Your task to perform on an android device: toggle location history Image 0: 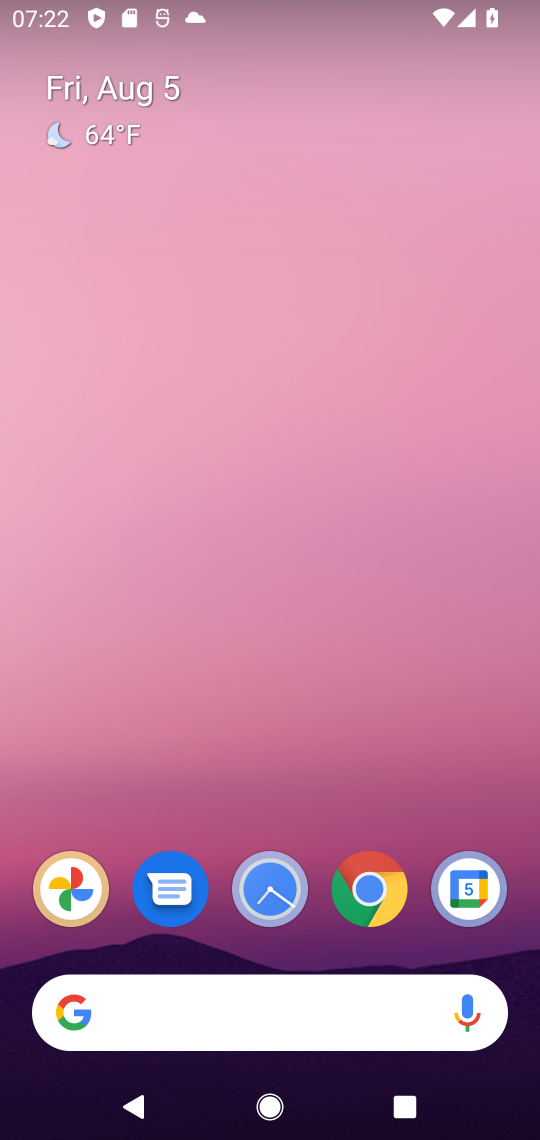
Step 0: drag from (356, 895) to (460, 29)
Your task to perform on an android device: toggle location history Image 1: 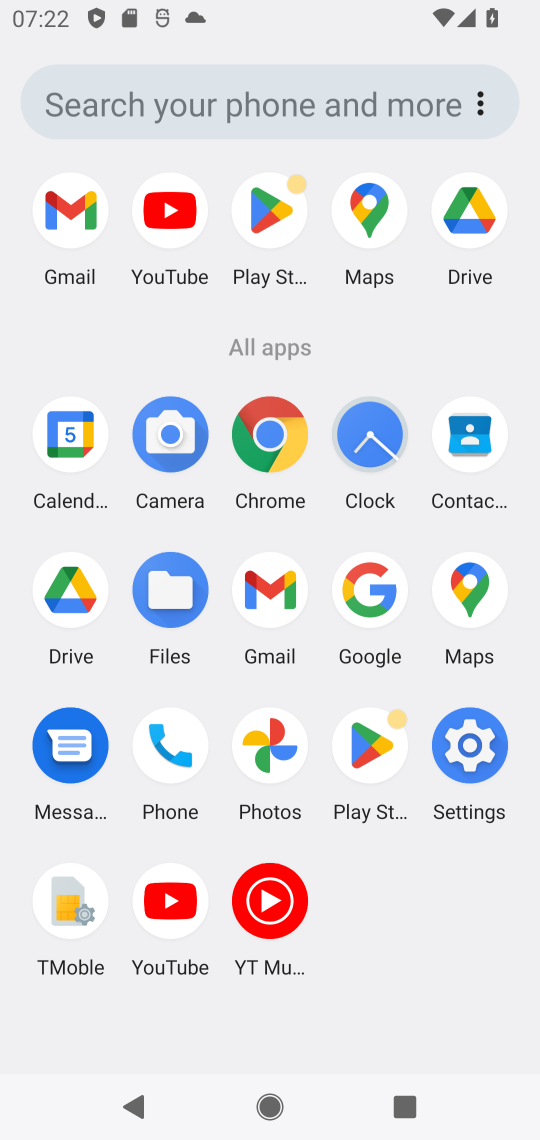
Step 1: click (465, 757)
Your task to perform on an android device: toggle location history Image 2: 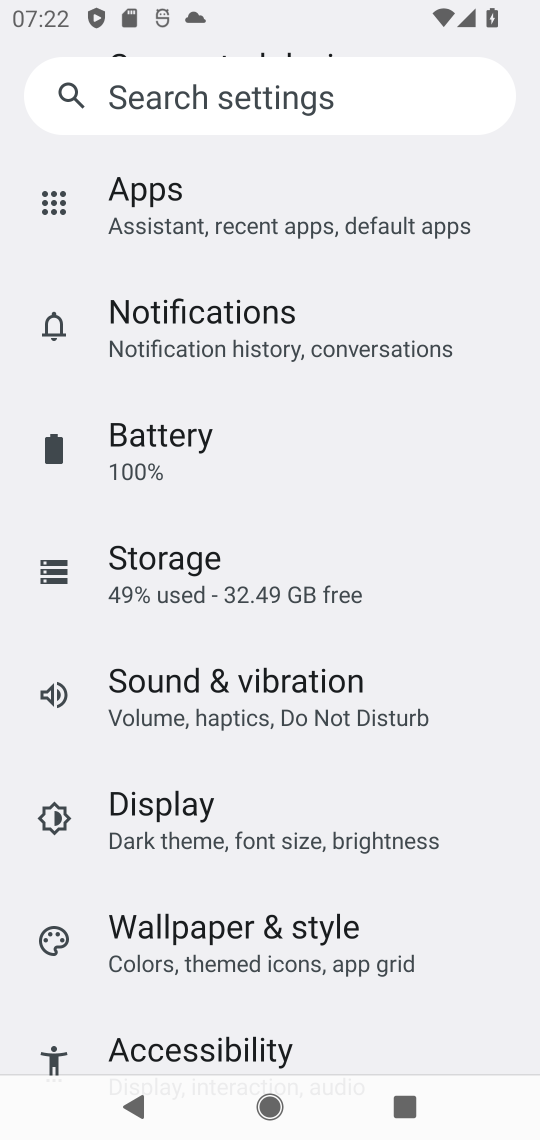
Step 2: drag from (185, 1049) to (216, 510)
Your task to perform on an android device: toggle location history Image 3: 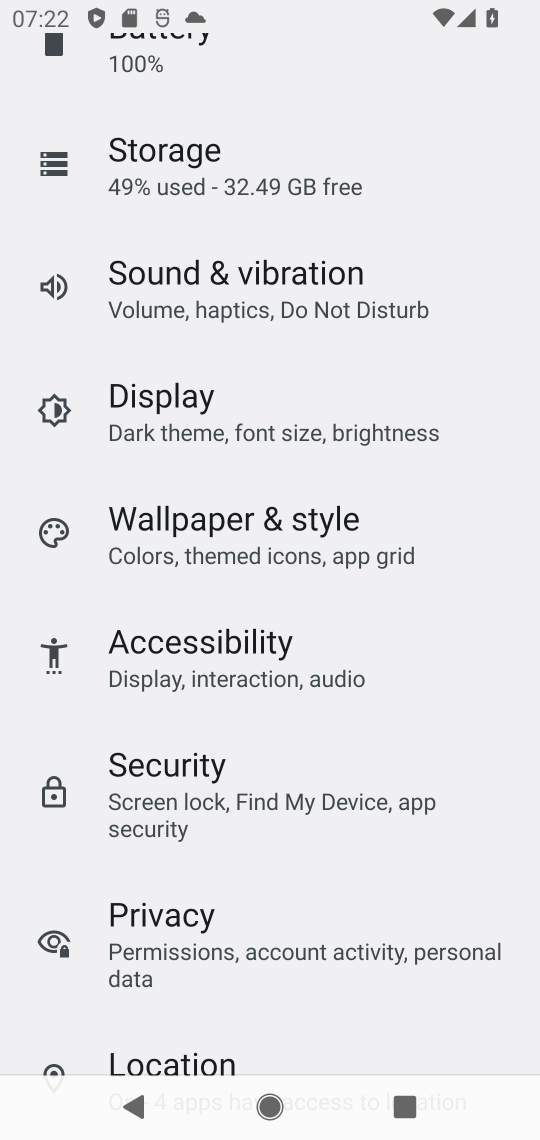
Step 3: click (159, 1061)
Your task to perform on an android device: toggle location history Image 4: 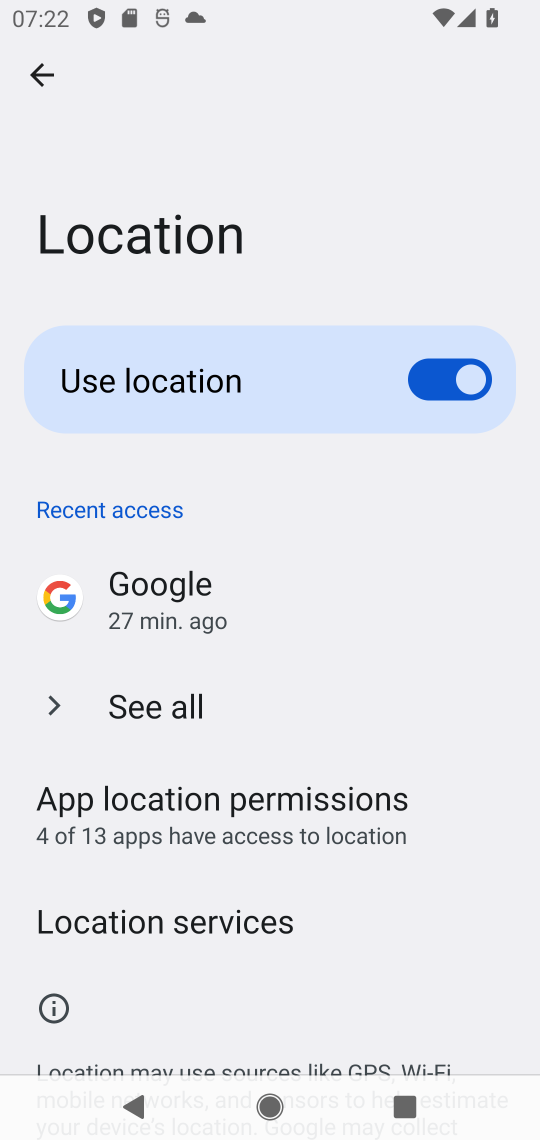
Step 4: drag from (149, 1057) to (212, 356)
Your task to perform on an android device: toggle location history Image 5: 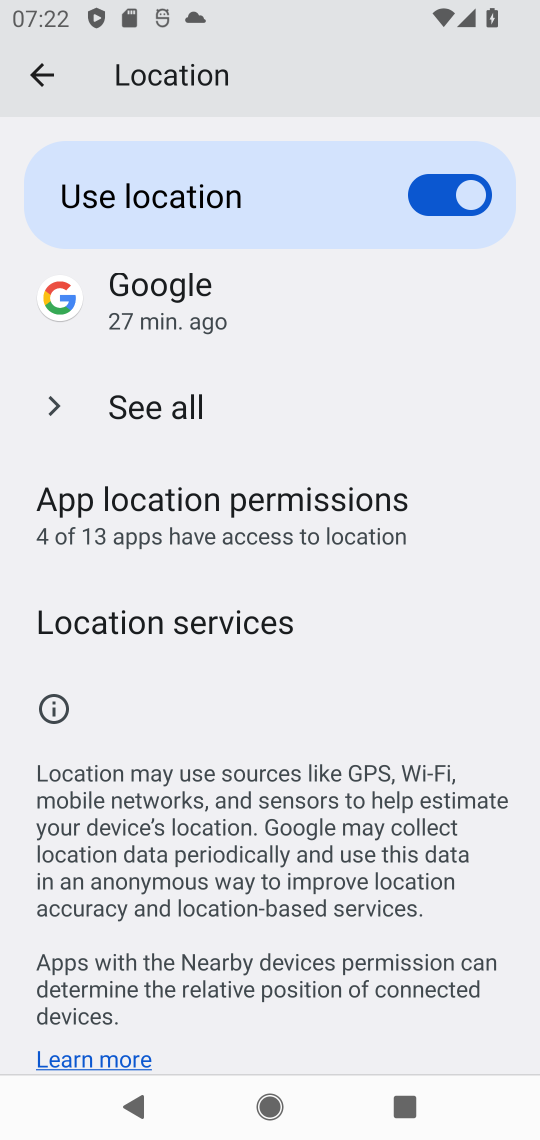
Step 5: drag from (196, 1024) to (236, 446)
Your task to perform on an android device: toggle location history Image 6: 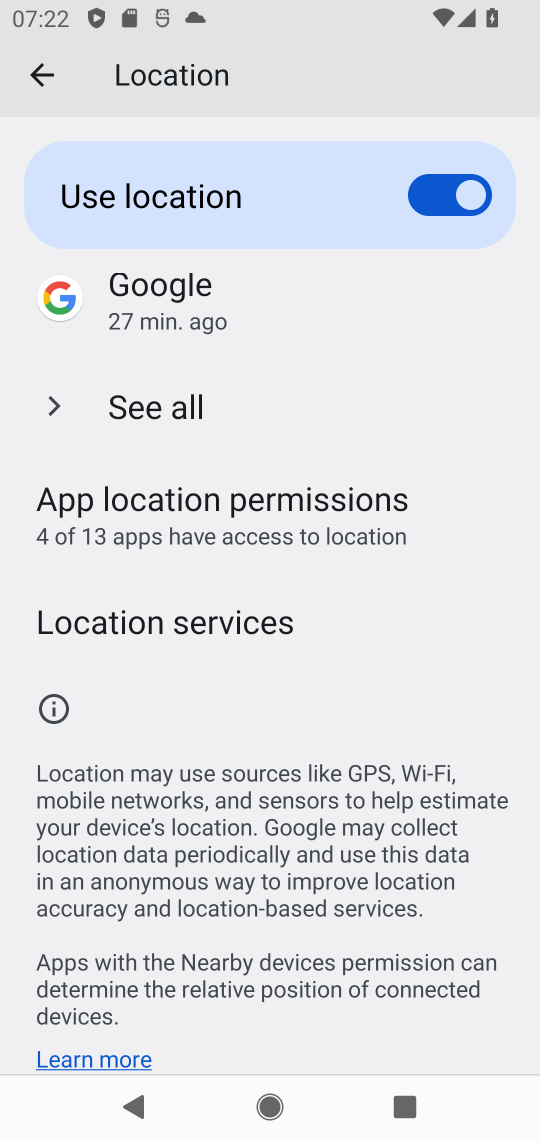
Step 6: click (170, 619)
Your task to perform on an android device: toggle location history Image 7: 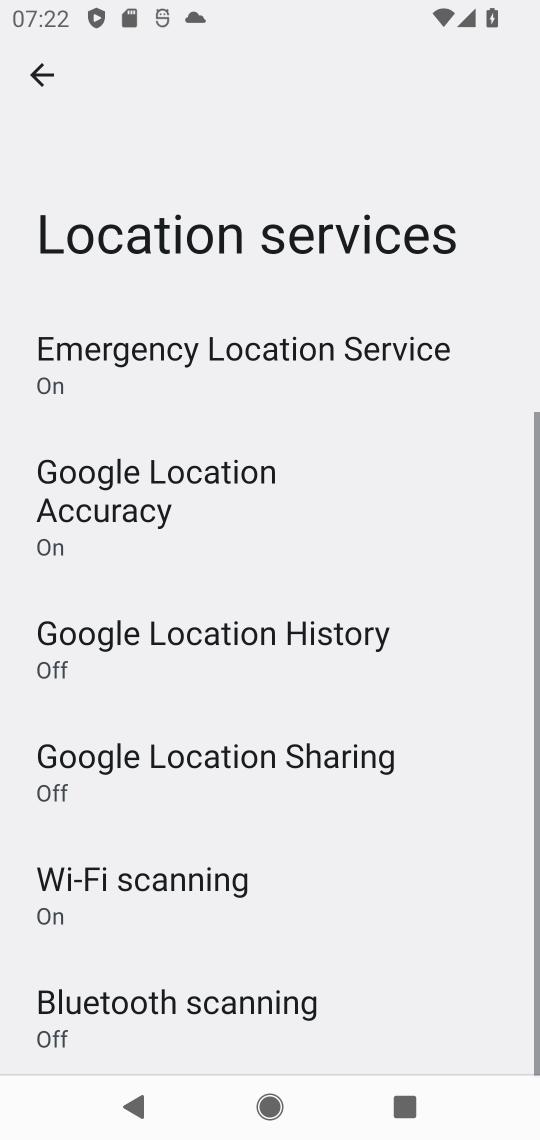
Step 7: click (200, 645)
Your task to perform on an android device: toggle location history Image 8: 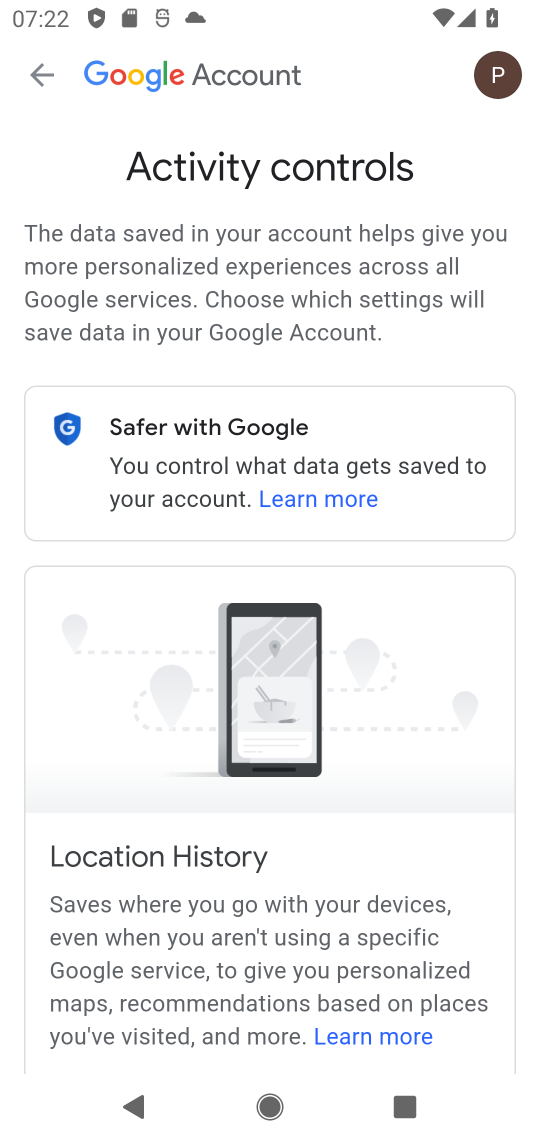
Step 8: drag from (369, 1008) to (369, 457)
Your task to perform on an android device: toggle location history Image 9: 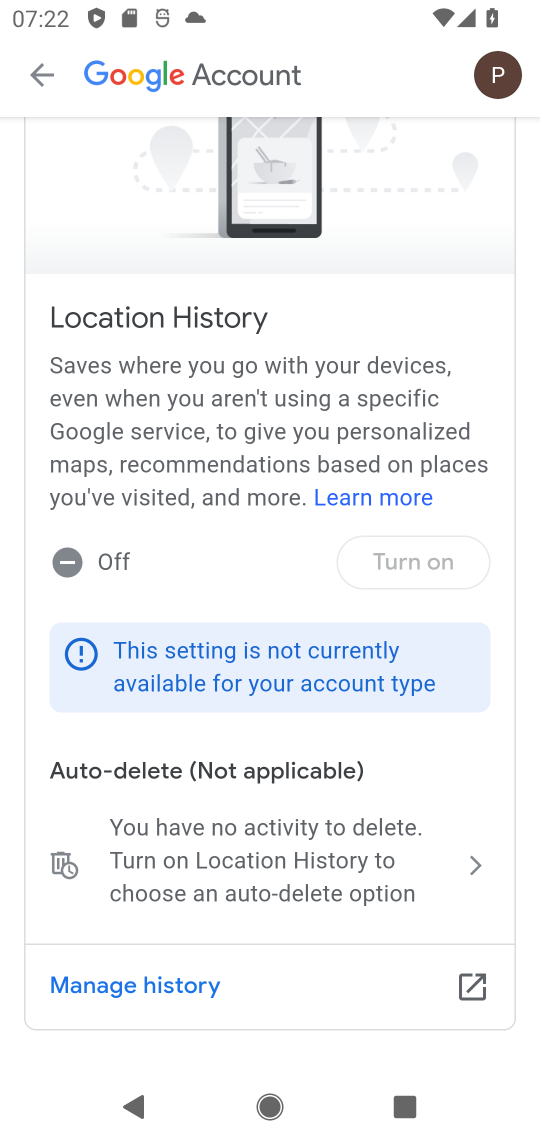
Step 9: drag from (362, 957) to (398, 346)
Your task to perform on an android device: toggle location history Image 10: 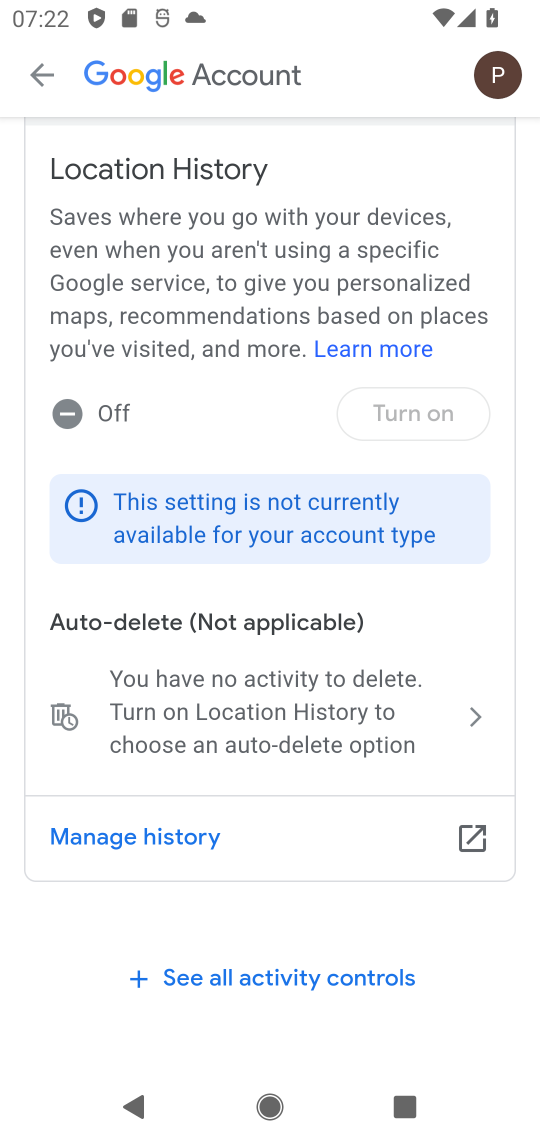
Step 10: click (404, 412)
Your task to perform on an android device: toggle location history Image 11: 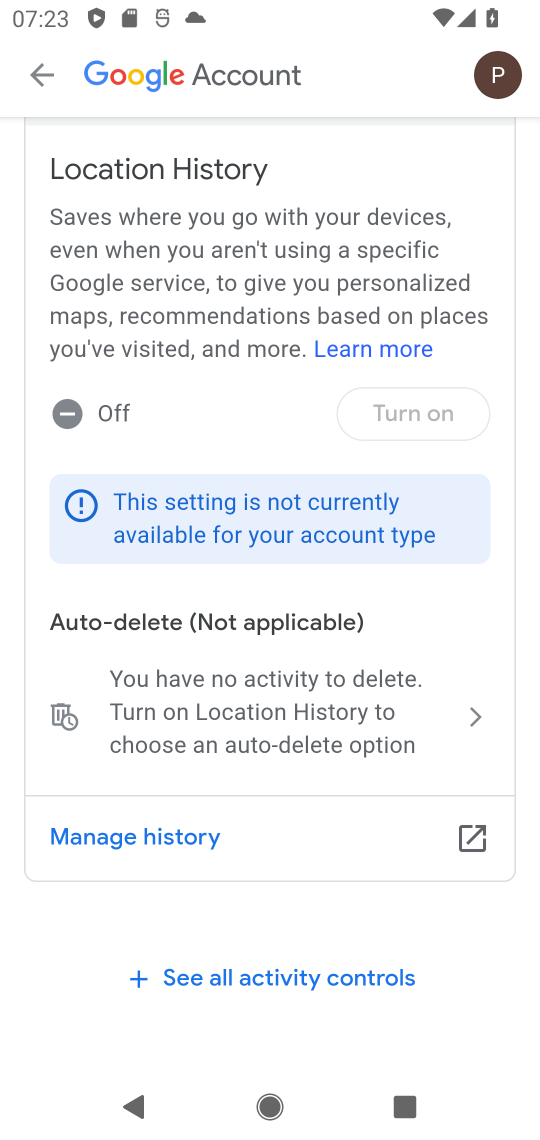
Step 11: task complete